Your task to perform on an android device: What's the news in Barbados? Image 0: 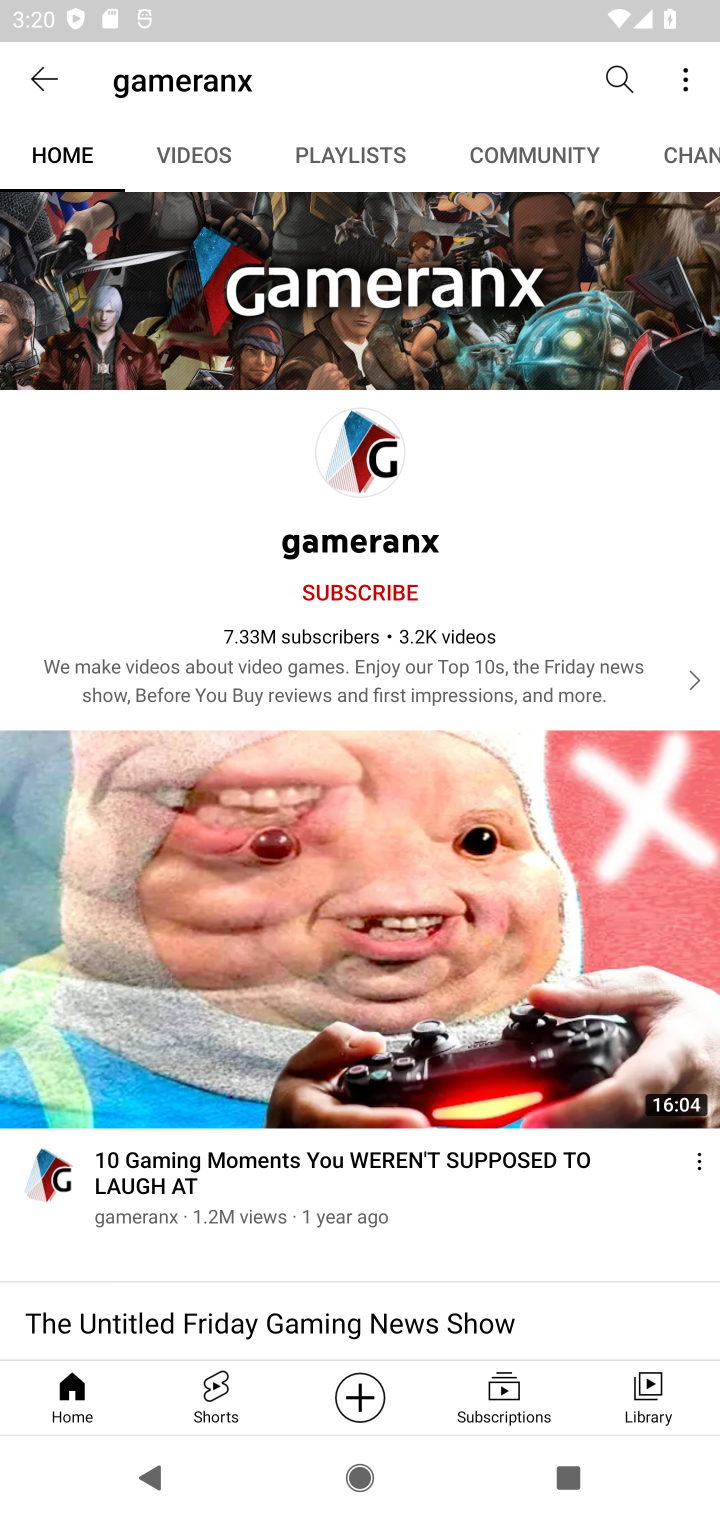
Step 0: press home button
Your task to perform on an android device: What's the news in Barbados? Image 1: 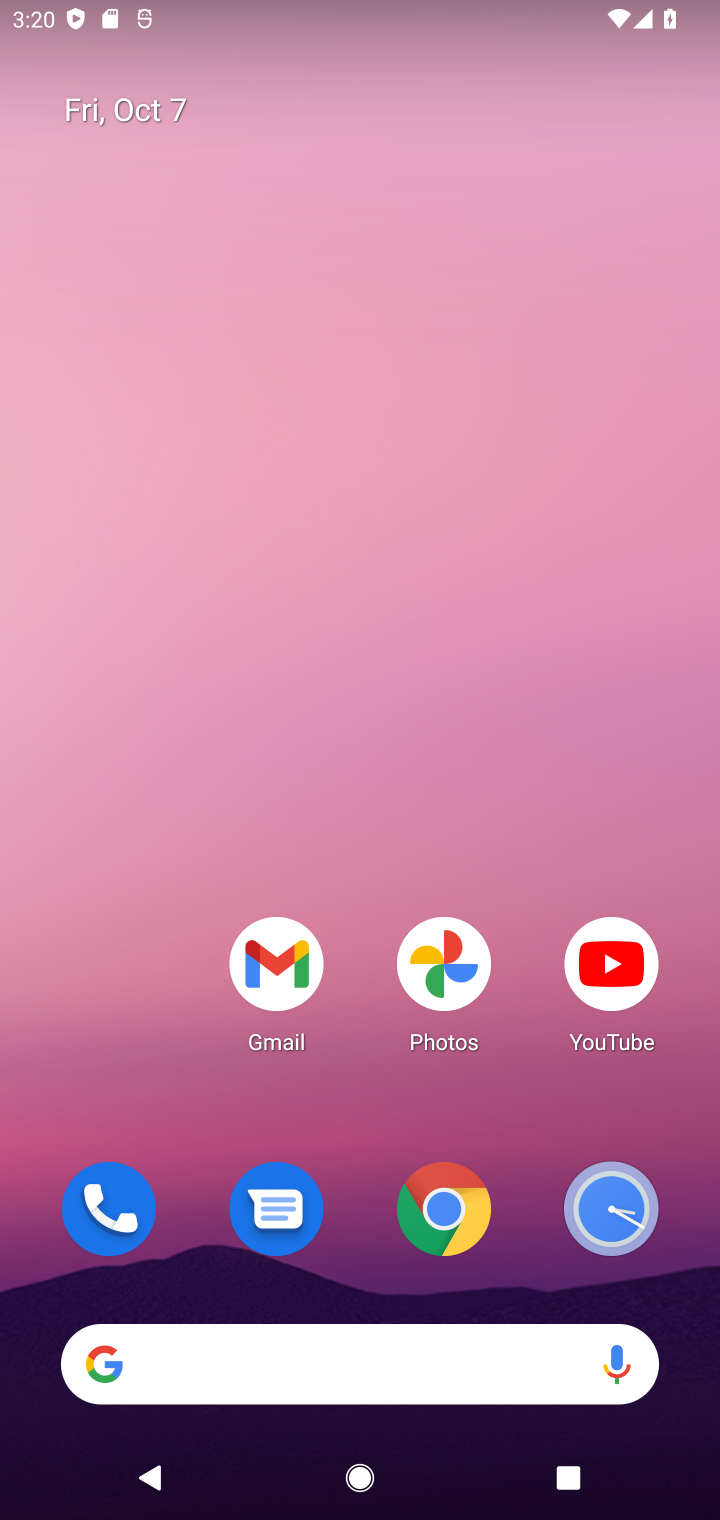
Step 1: click (320, 1346)
Your task to perform on an android device: What's the news in Barbados? Image 2: 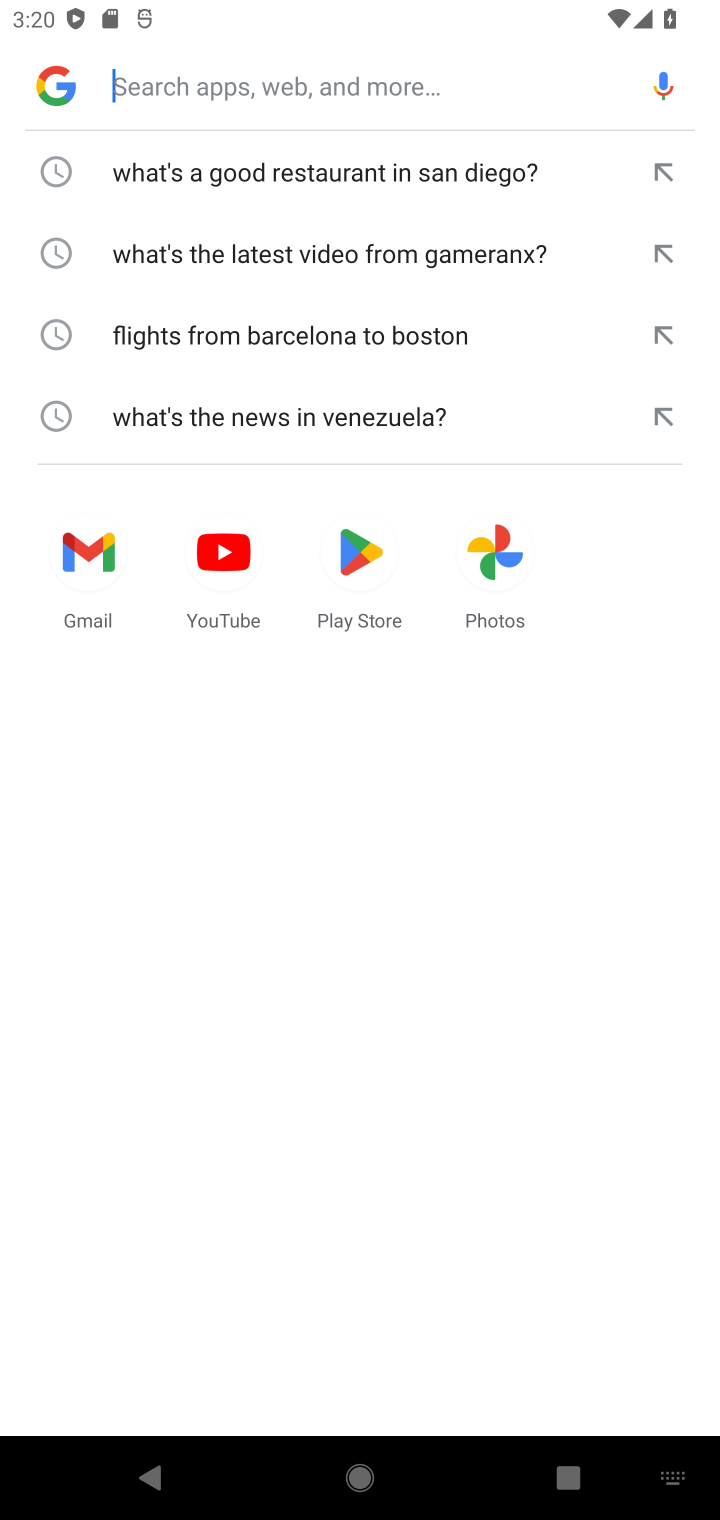
Step 2: type "What's the news in Barbados?"
Your task to perform on an android device: What's the news in Barbados? Image 3: 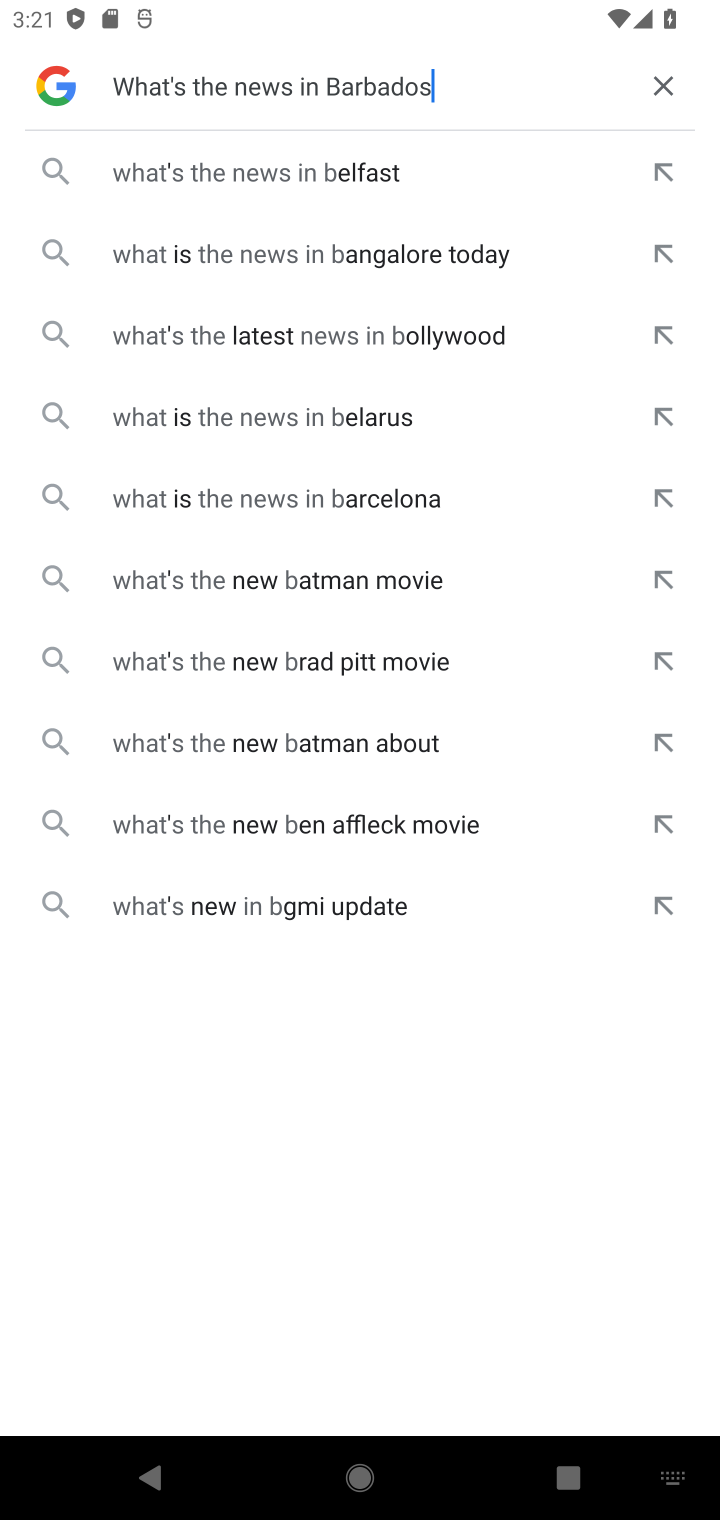
Step 3: press enter
Your task to perform on an android device: What's the news in Barbados? Image 4: 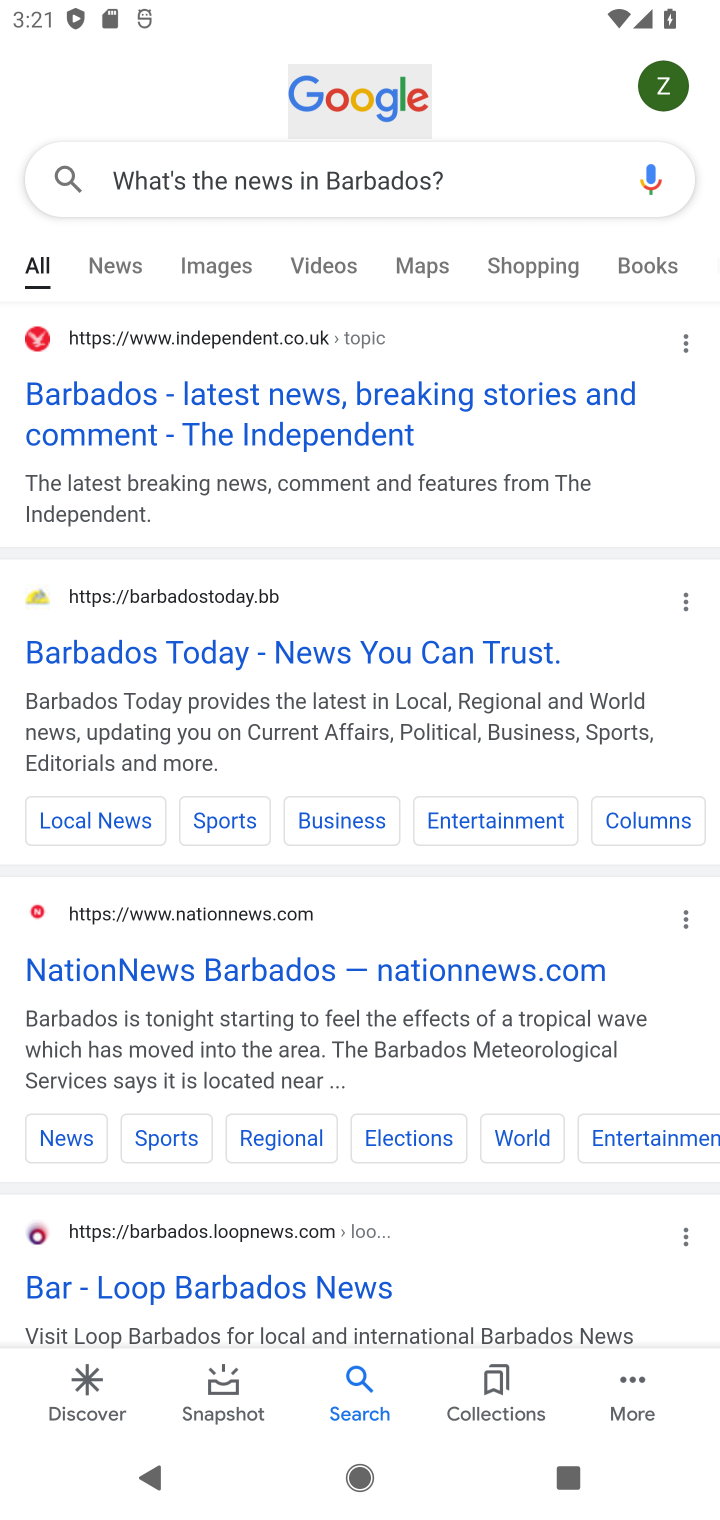
Step 4: click (416, 422)
Your task to perform on an android device: What's the news in Barbados? Image 5: 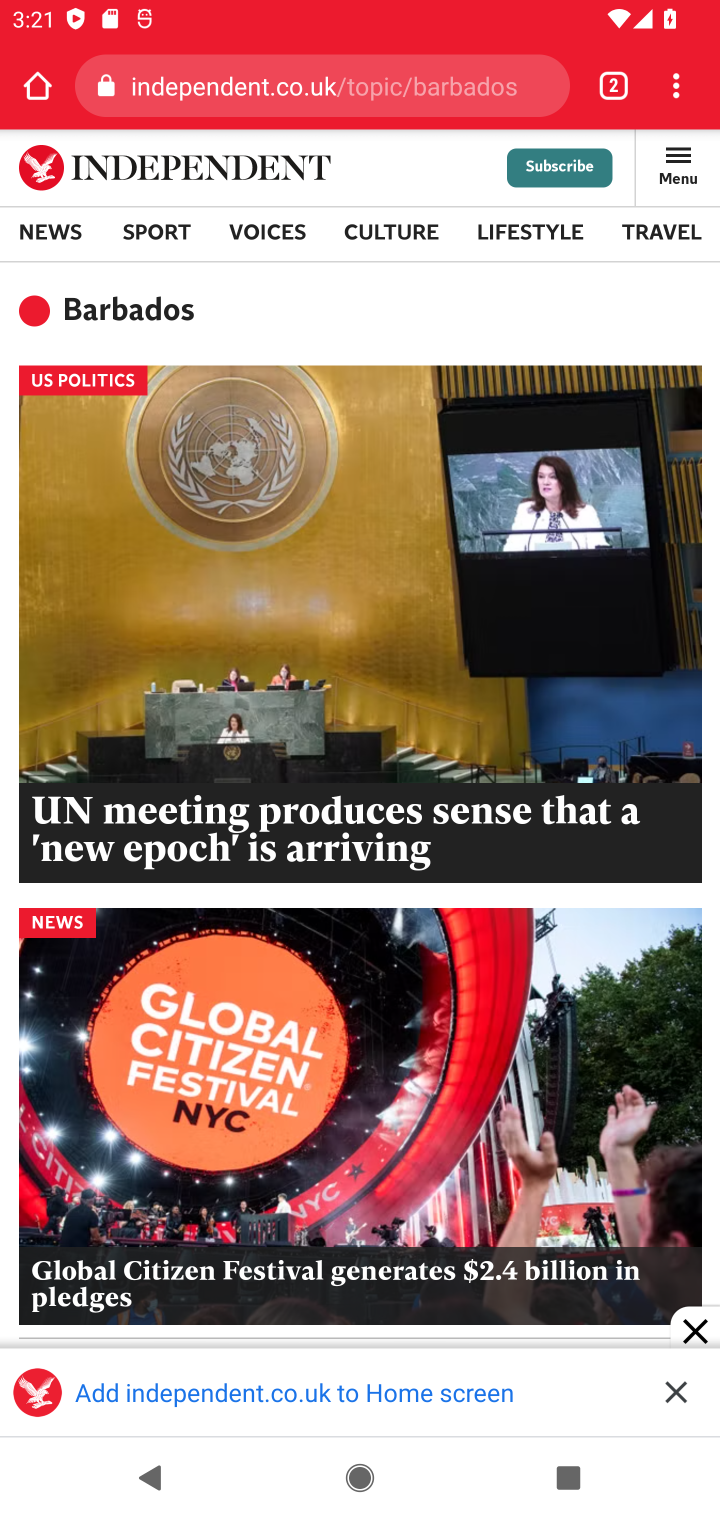
Step 5: task complete